Your task to perform on an android device: Go to ESPN.com Image 0: 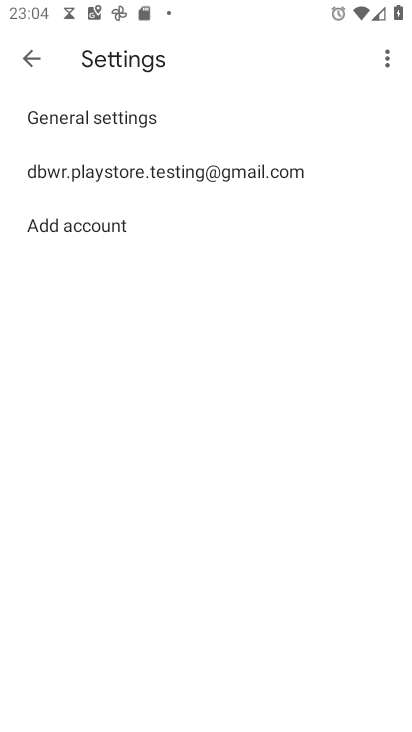
Step 0: press home button
Your task to perform on an android device: Go to ESPN.com Image 1: 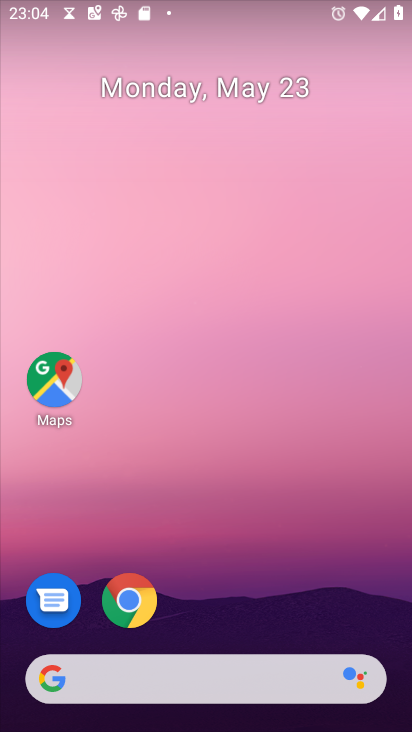
Step 1: click (128, 603)
Your task to perform on an android device: Go to ESPN.com Image 2: 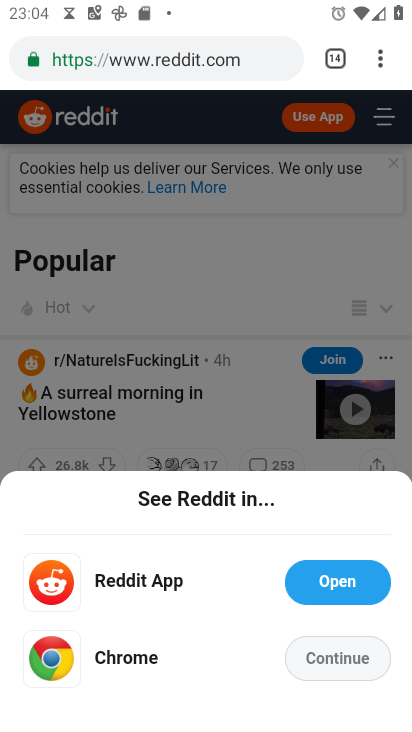
Step 2: click (382, 67)
Your task to perform on an android device: Go to ESPN.com Image 3: 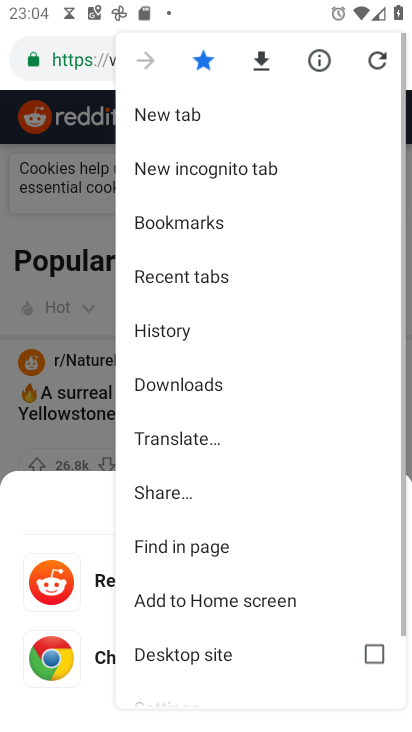
Step 3: click (154, 117)
Your task to perform on an android device: Go to ESPN.com Image 4: 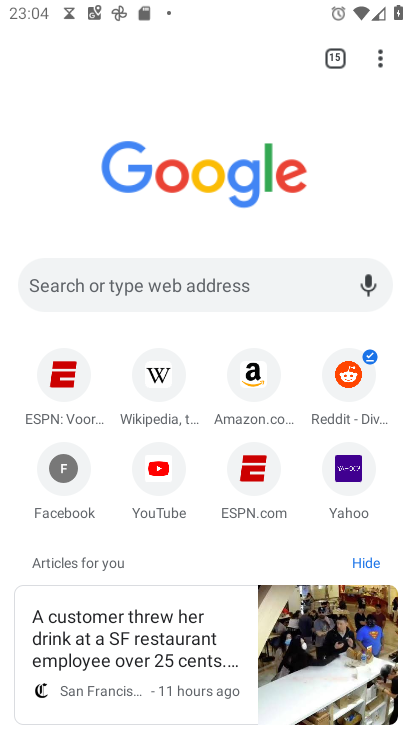
Step 4: click (58, 369)
Your task to perform on an android device: Go to ESPN.com Image 5: 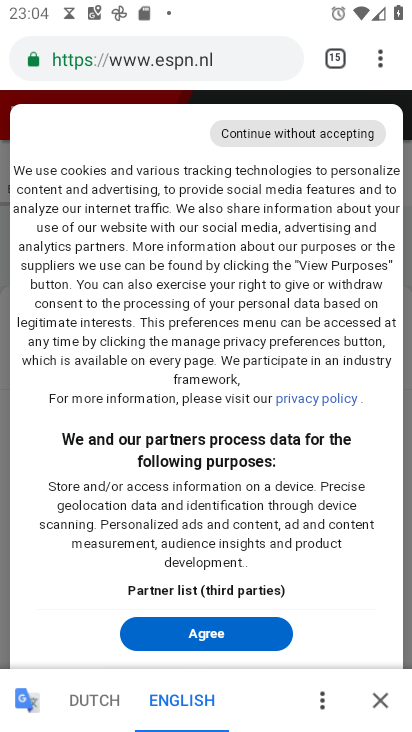
Step 5: click (221, 632)
Your task to perform on an android device: Go to ESPN.com Image 6: 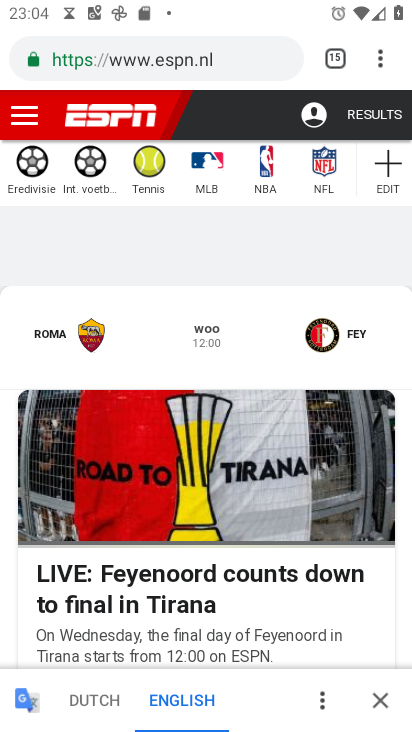
Step 6: task complete